Your task to perform on an android device: Turn on the flashlight Image 0: 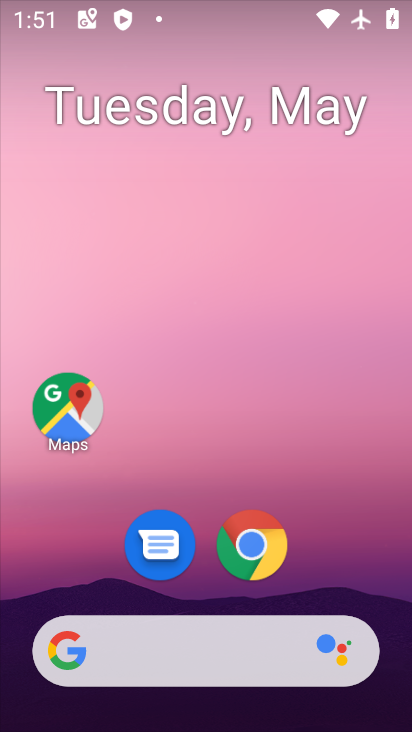
Step 0: drag from (216, 7) to (247, 425)
Your task to perform on an android device: Turn on the flashlight Image 1: 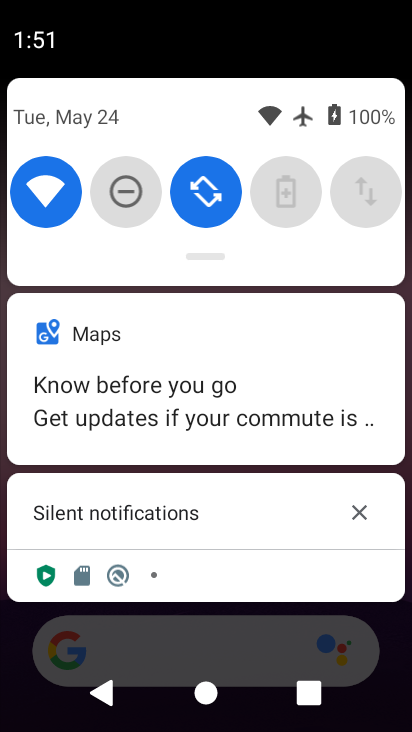
Step 1: drag from (215, 264) to (201, 464)
Your task to perform on an android device: Turn on the flashlight Image 2: 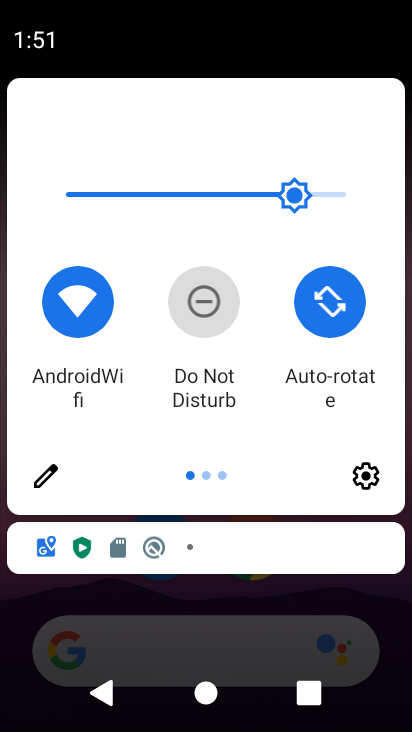
Step 2: click (40, 477)
Your task to perform on an android device: Turn on the flashlight Image 3: 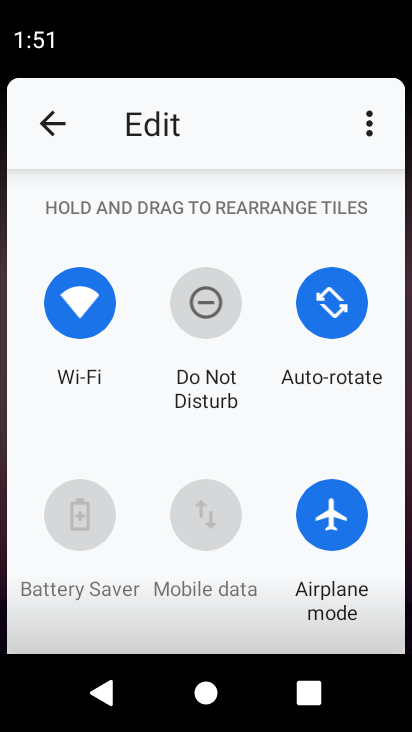
Step 3: task complete